Your task to perform on an android device: Open wifi settings Image 0: 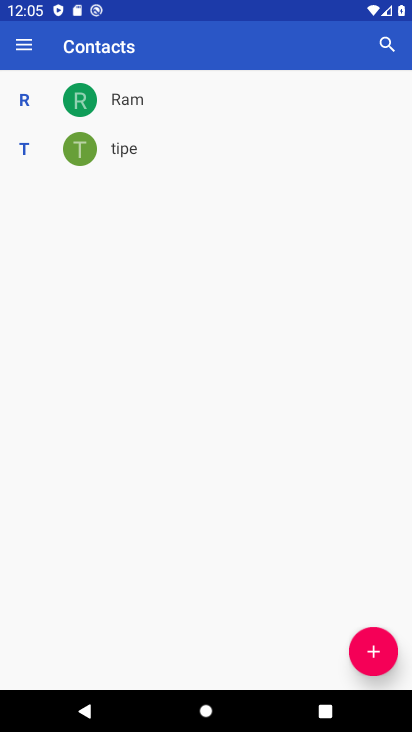
Step 0: press home button
Your task to perform on an android device: Open wifi settings Image 1: 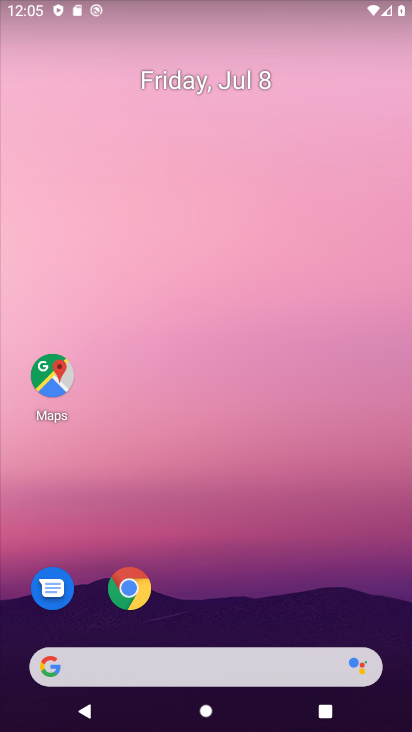
Step 1: drag from (177, 488) to (195, 51)
Your task to perform on an android device: Open wifi settings Image 2: 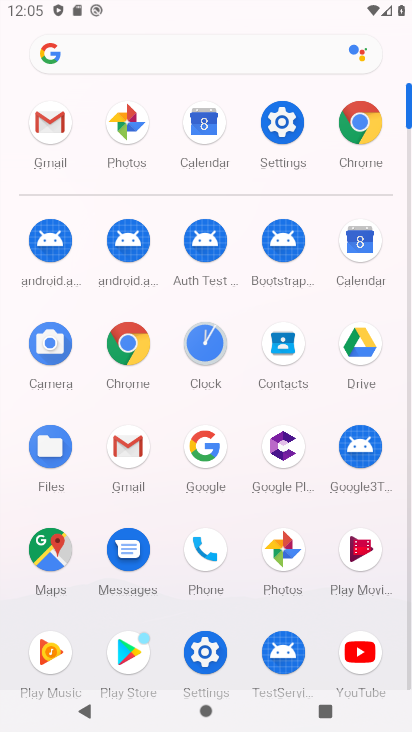
Step 2: click (278, 126)
Your task to perform on an android device: Open wifi settings Image 3: 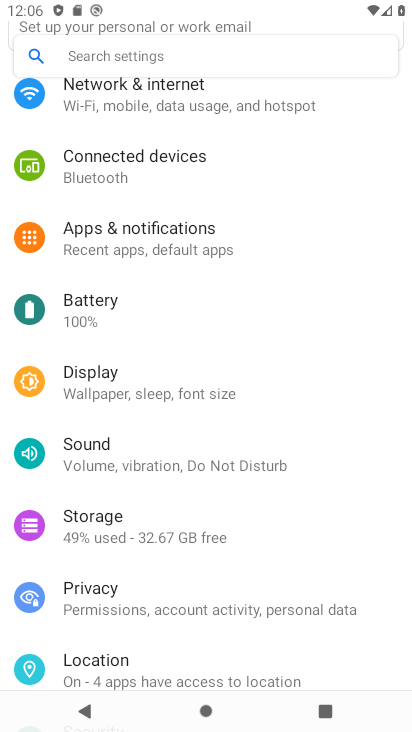
Step 3: click (278, 126)
Your task to perform on an android device: Open wifi settings Image 4: 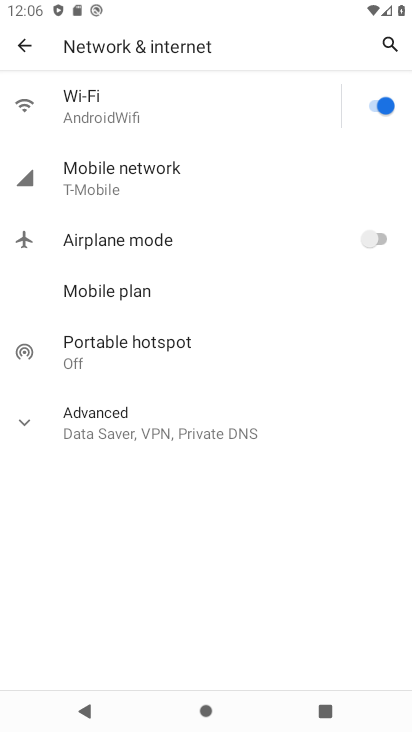
Step 4: click (278, 126)
Your task to perform on an android device: Open wifi settings Image 5: 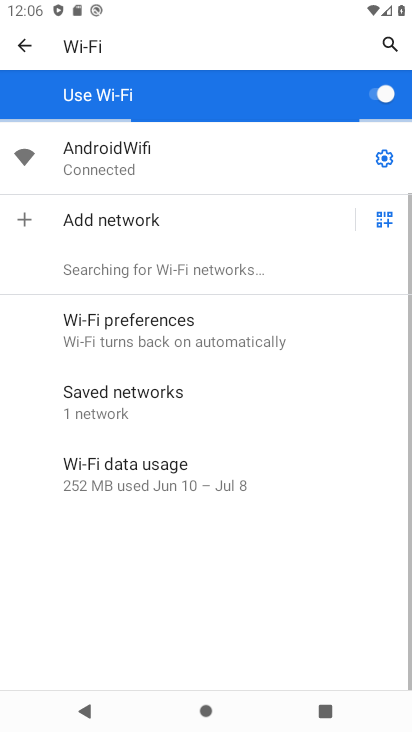
Step 5: task complete